Your task to perform on an android device: open app "LinkedIn" Image 0: 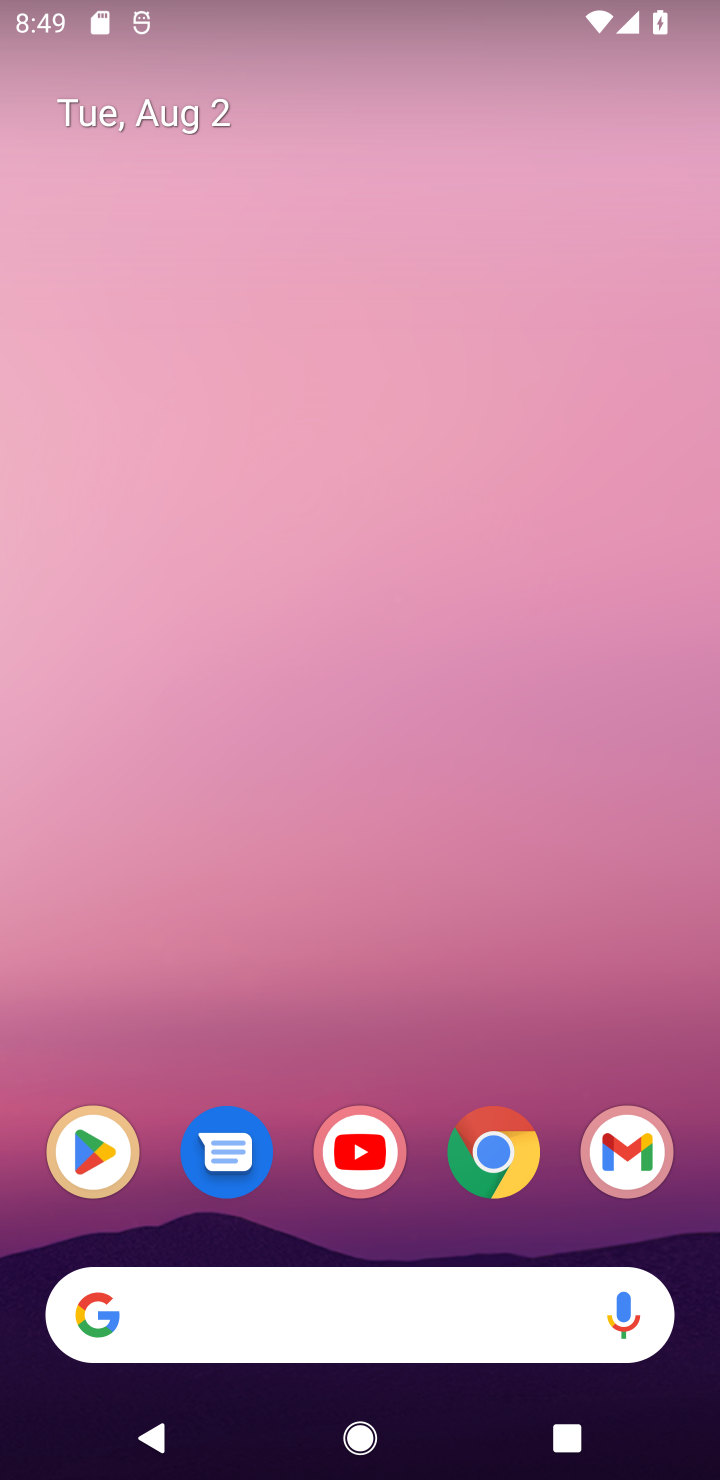
Step 0: click (94, 1167)
Your task to perform on an android device: open app "LinkedIn" Image 1: 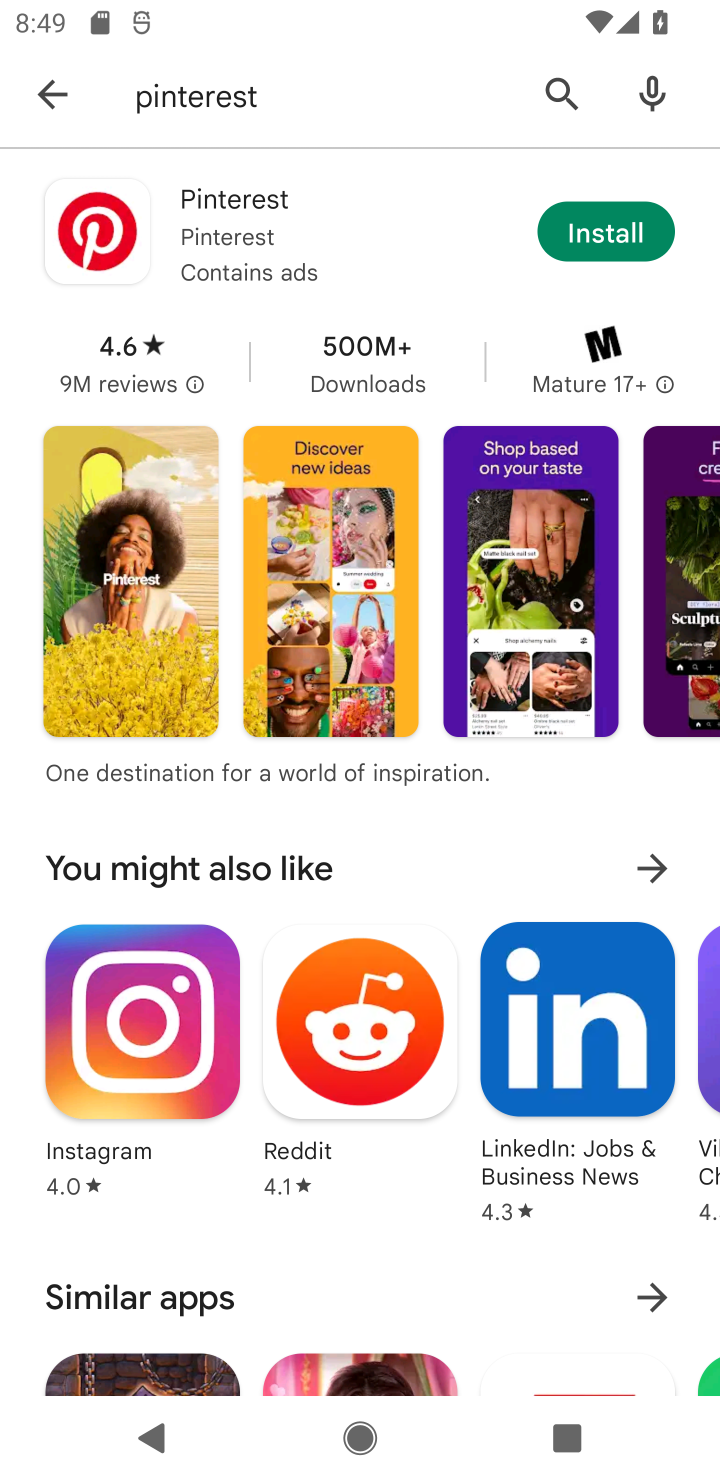
Step 1: click (45, 74)
Your task to perform on an android device: open app "LinkedIn" Image 2: 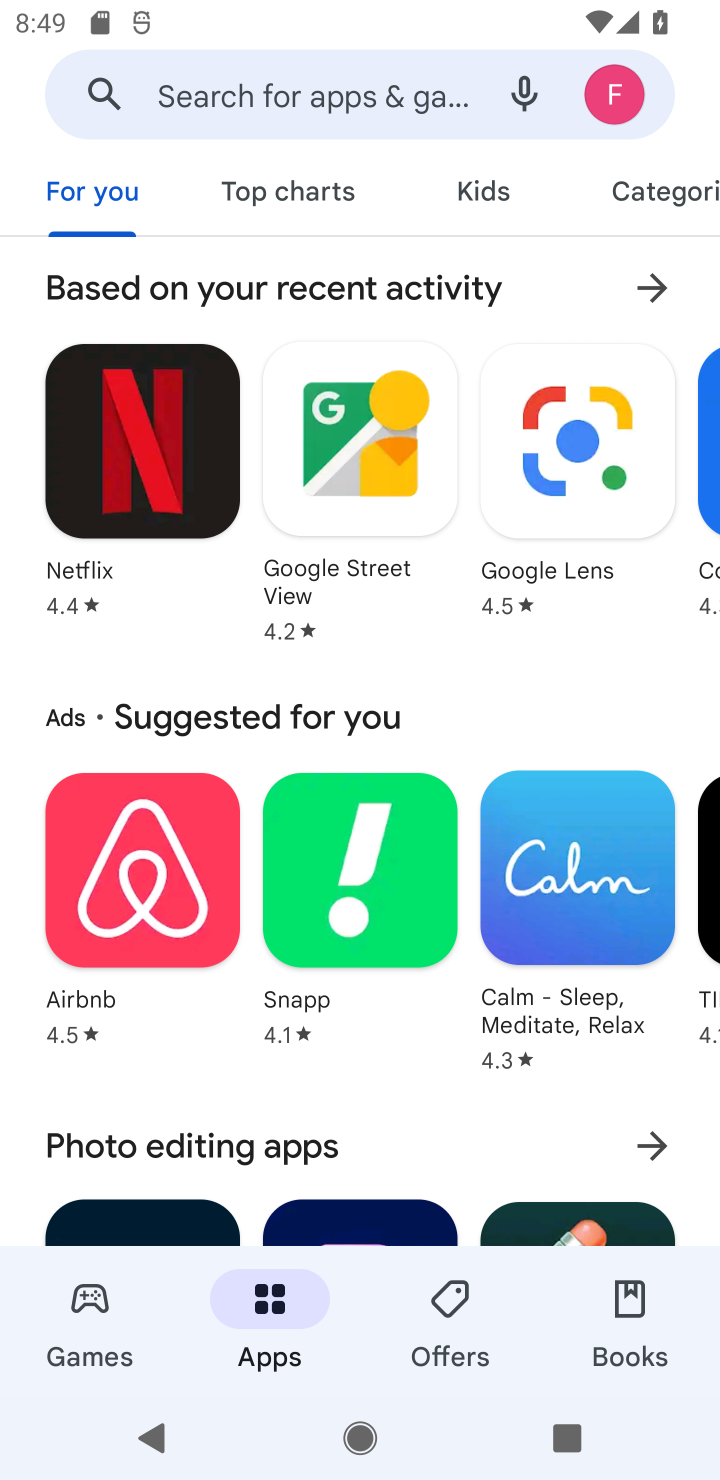
Step 2: click (229, 95)
Your task to perform on an android device: open app "LinkedIn" Image 3: 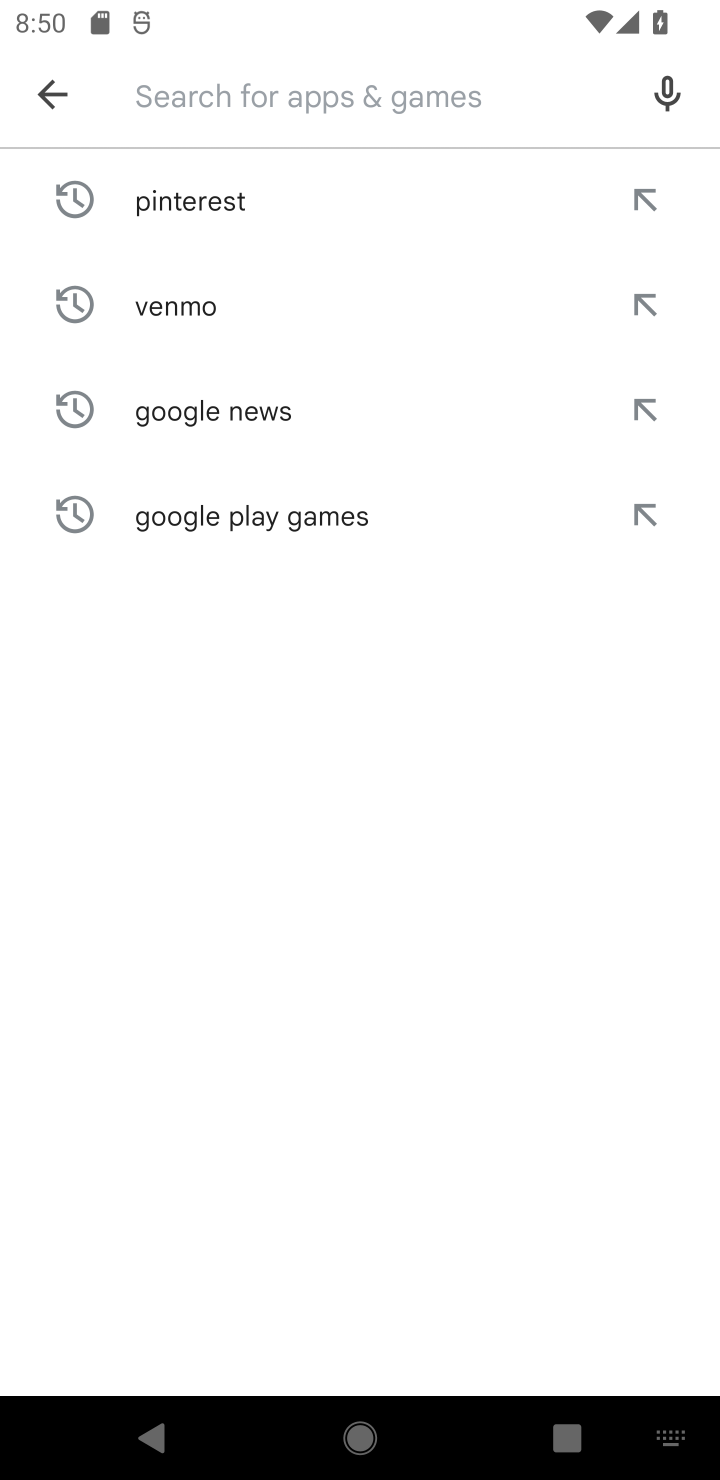
Step 3: type "LinkedIn"
Your task to perform on an android device: open app "LinkedIn" Image 4: 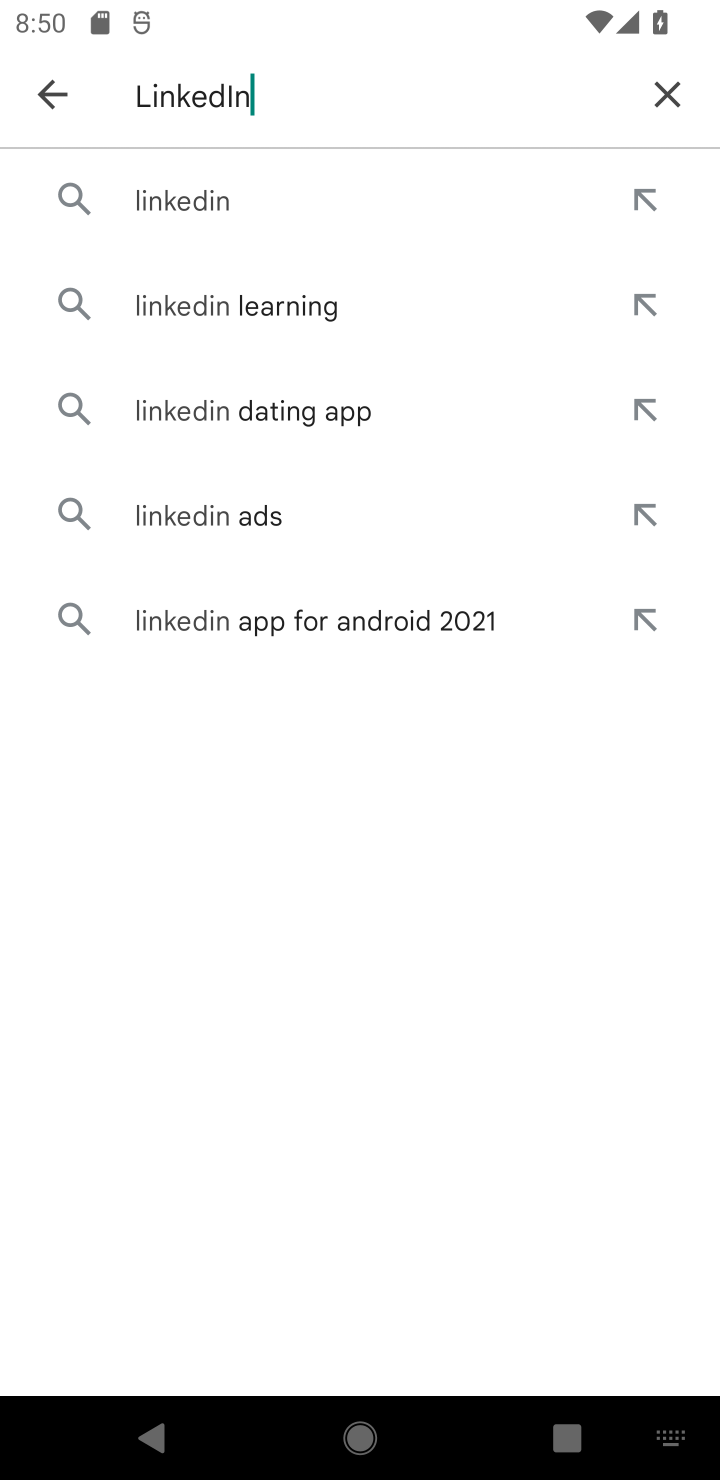
Step 4: click (188, 192)
Your task to perform on an android device: open app "LinkedIn" Image 5: 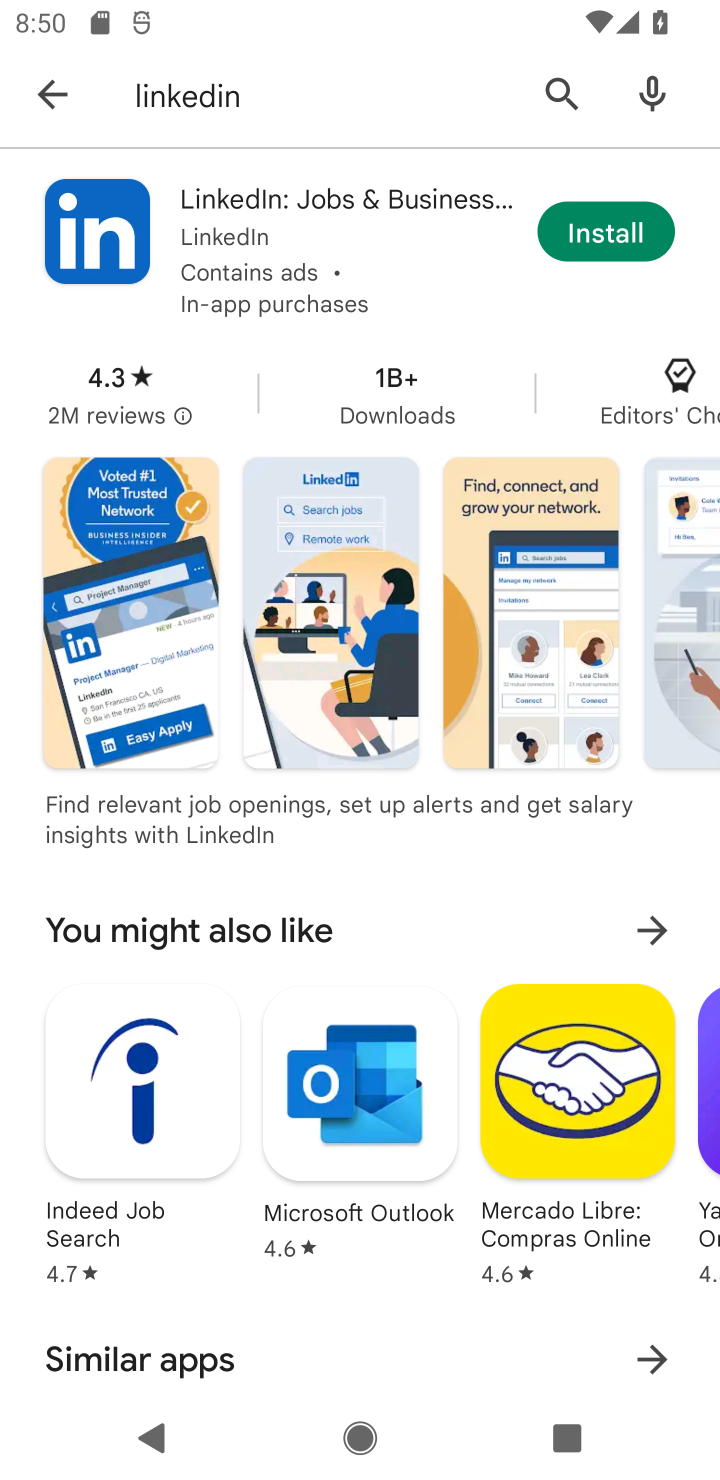
Step 5: click (601, 227)
Your task to perform on an android device: open app "LinkedIn" Image 6: 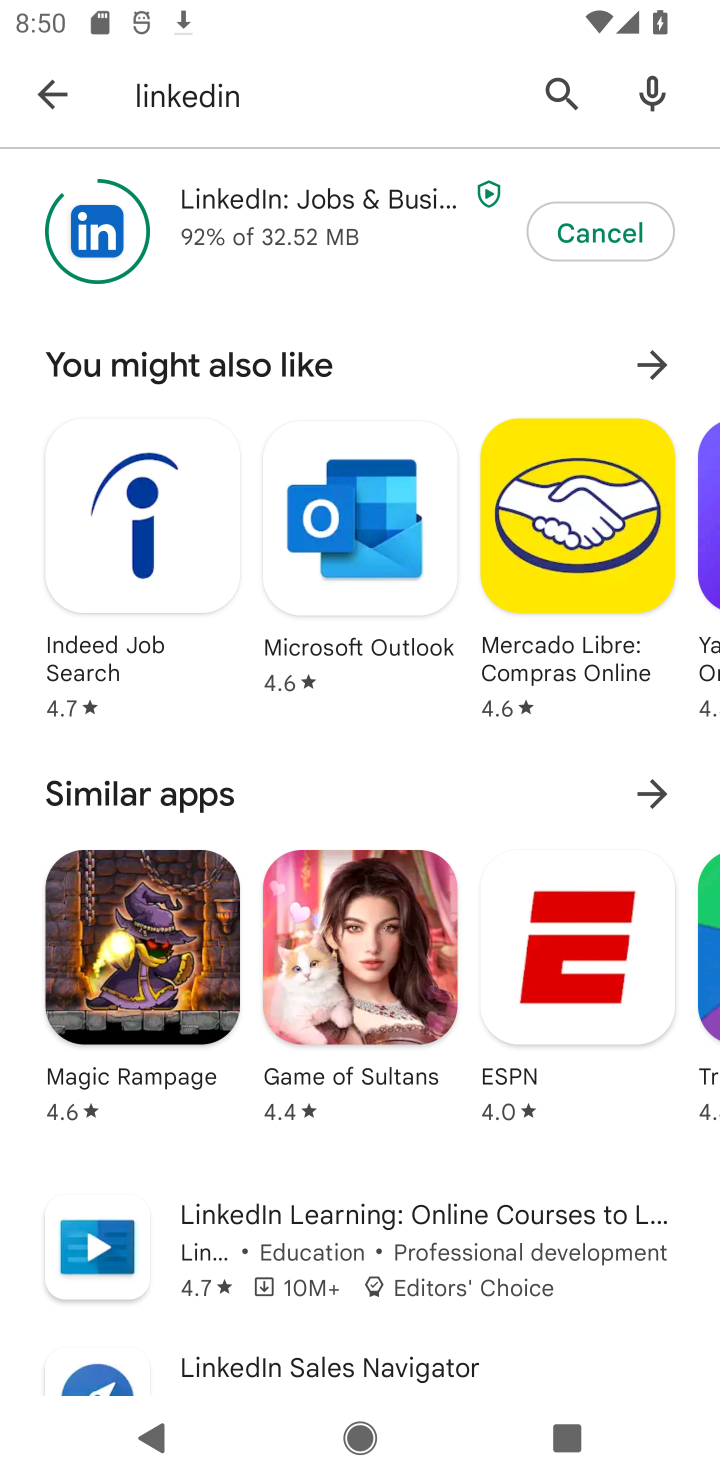
Step 6: task complete